Your task to perform on an android device: turn off sleep mode Image 0: 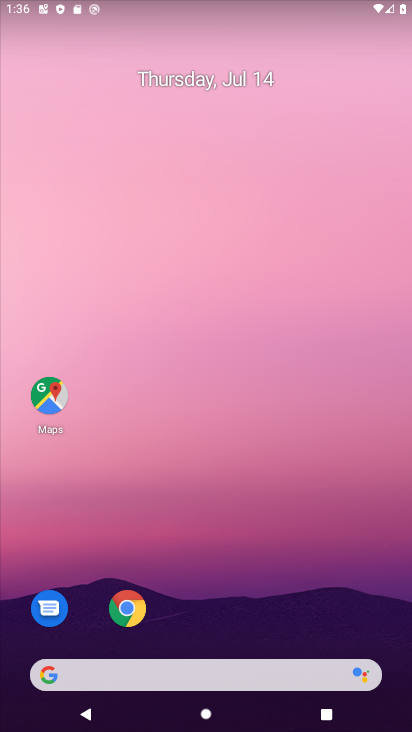
Step 0: drag from (372, 624) to (297, 48)
Your task to perform on an android device: turn off sleep mode Image 1: 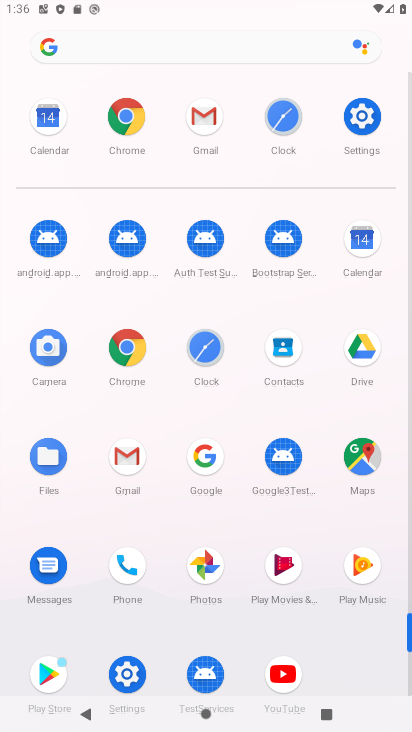
Step 1: click (126, 675)
Your task to perform on an android device: turn off sleep mode Image 2: 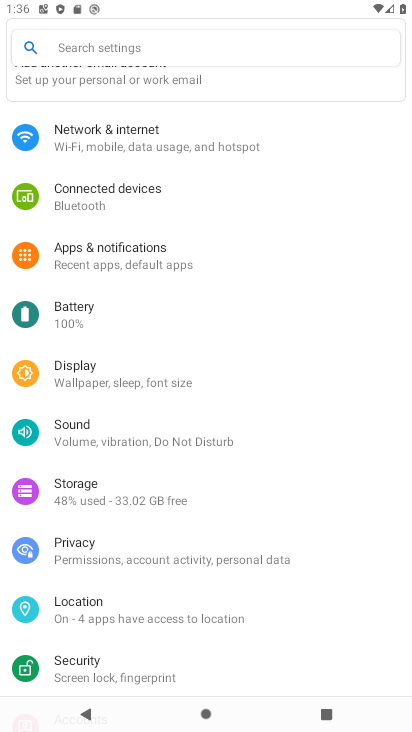
Step 2: click (75, 396)
Your task to perform on an android device: turn off sleep mode Image 3: 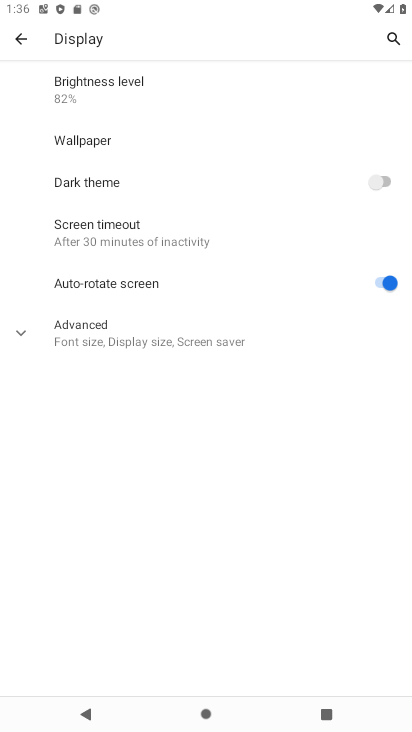
Step 3: click (21, 328)
Your task to perform on an android device: turn off sleep mode Image 4: 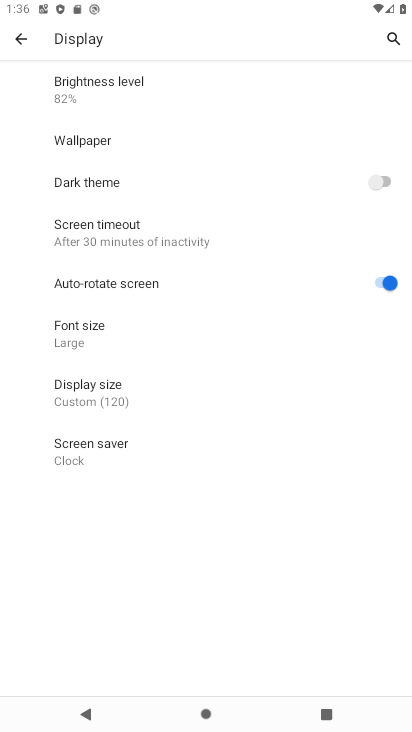
Step 4: task complete